Your task to perform on an android device: open app "PUBG MOBILE" Image 0: 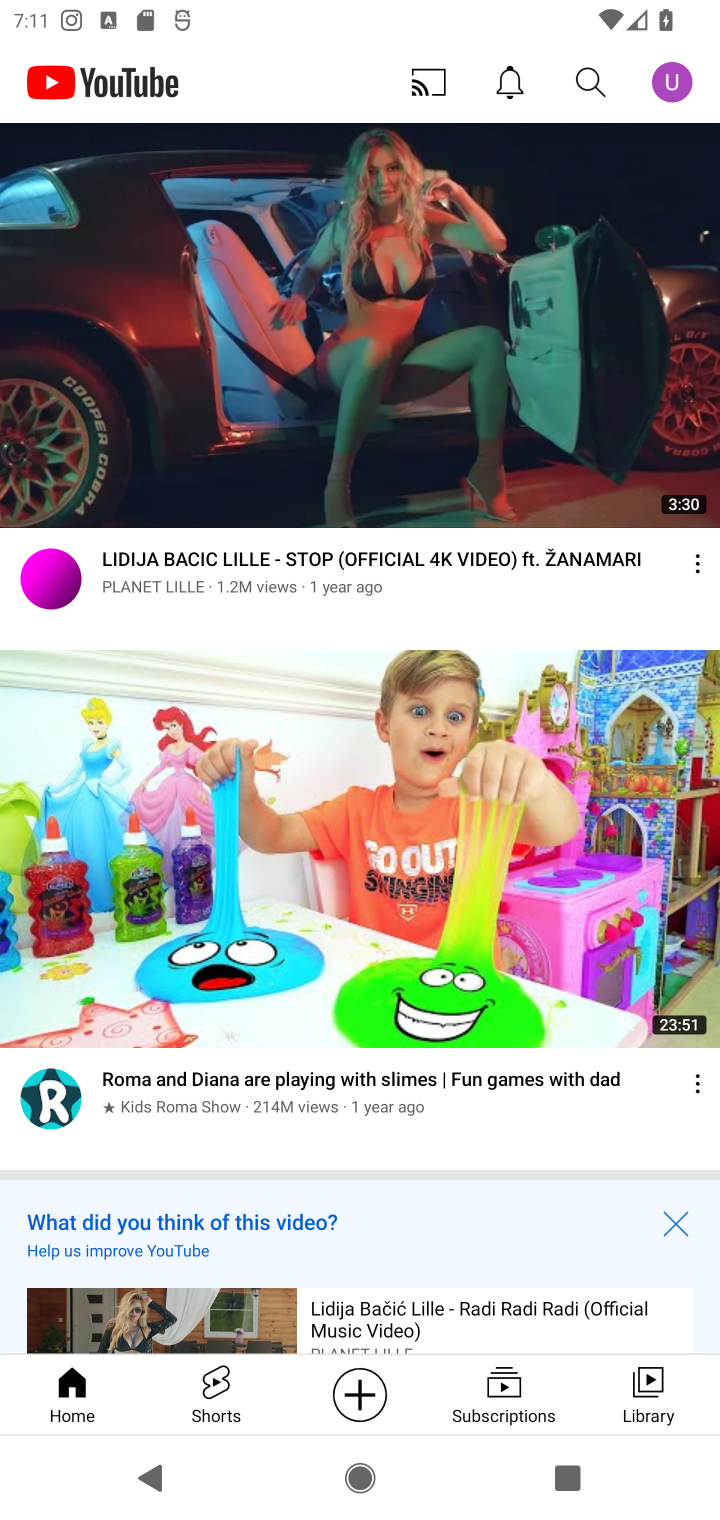
Step 0: press home button
Your task to perform on an android device: open app "PUBG MOBILE" Image 1: 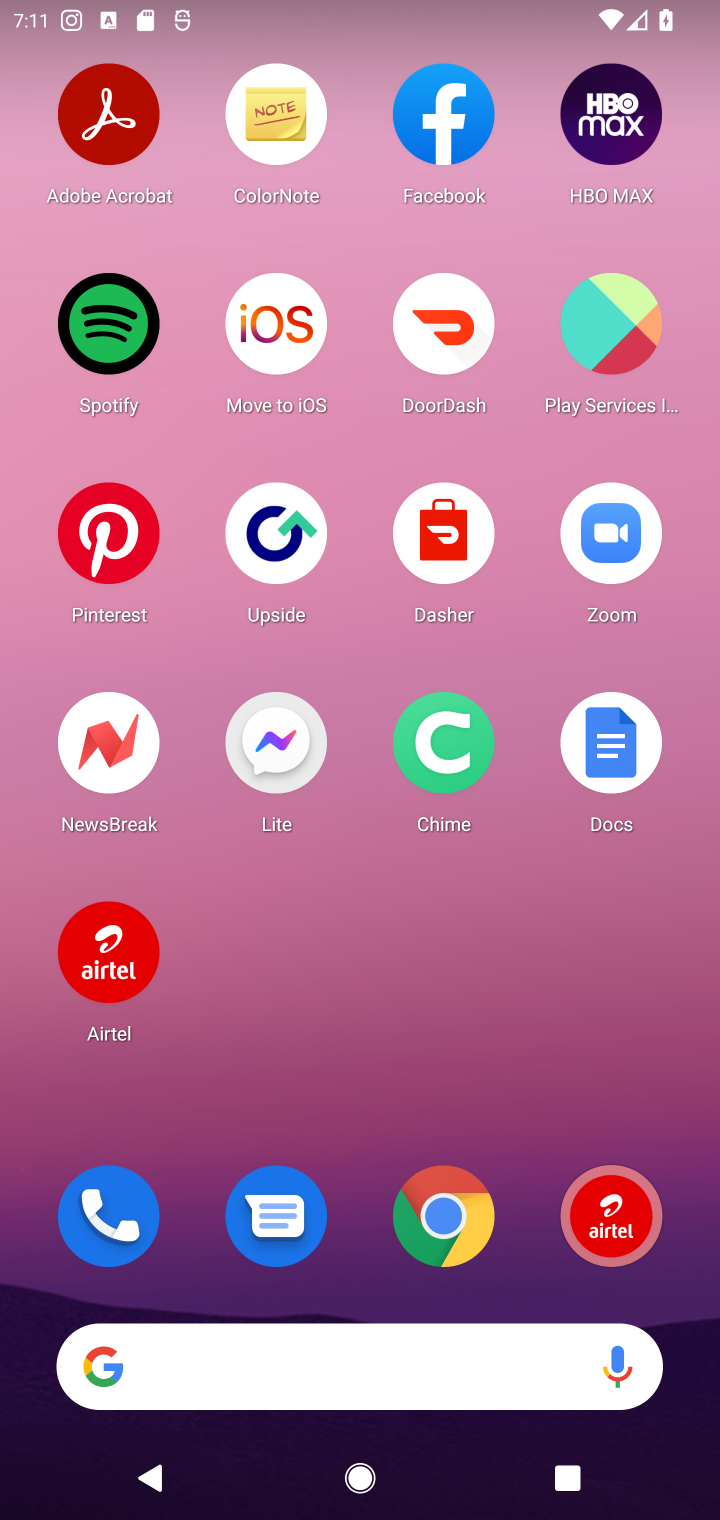
Step 1: drag from (425, 1076) to (445, 398)
Your task to perform on an android device: open app "PUBG MOBILE" Image 2: 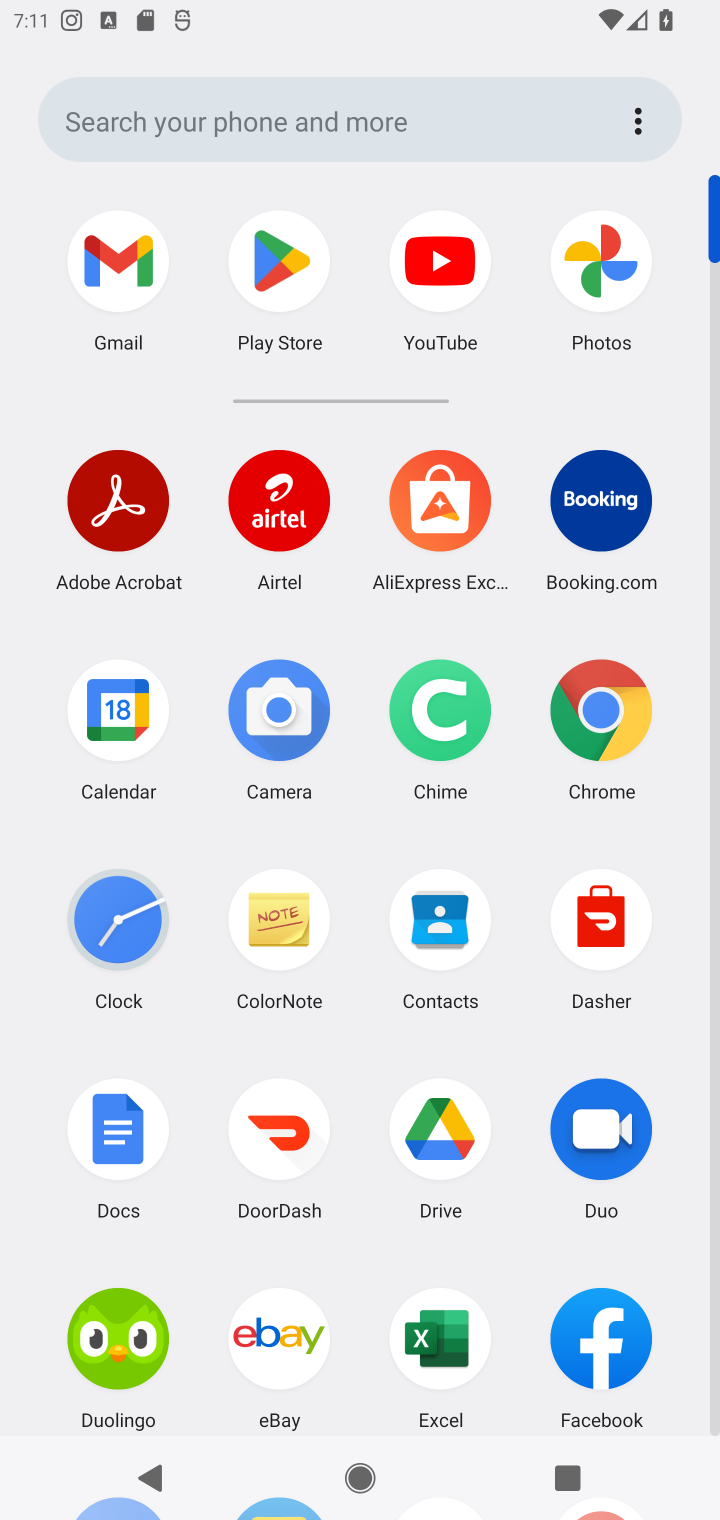
Step 2: click (285, 295)
Your task to perform on an android device: open app "PUBG MOBILE" Image 3: 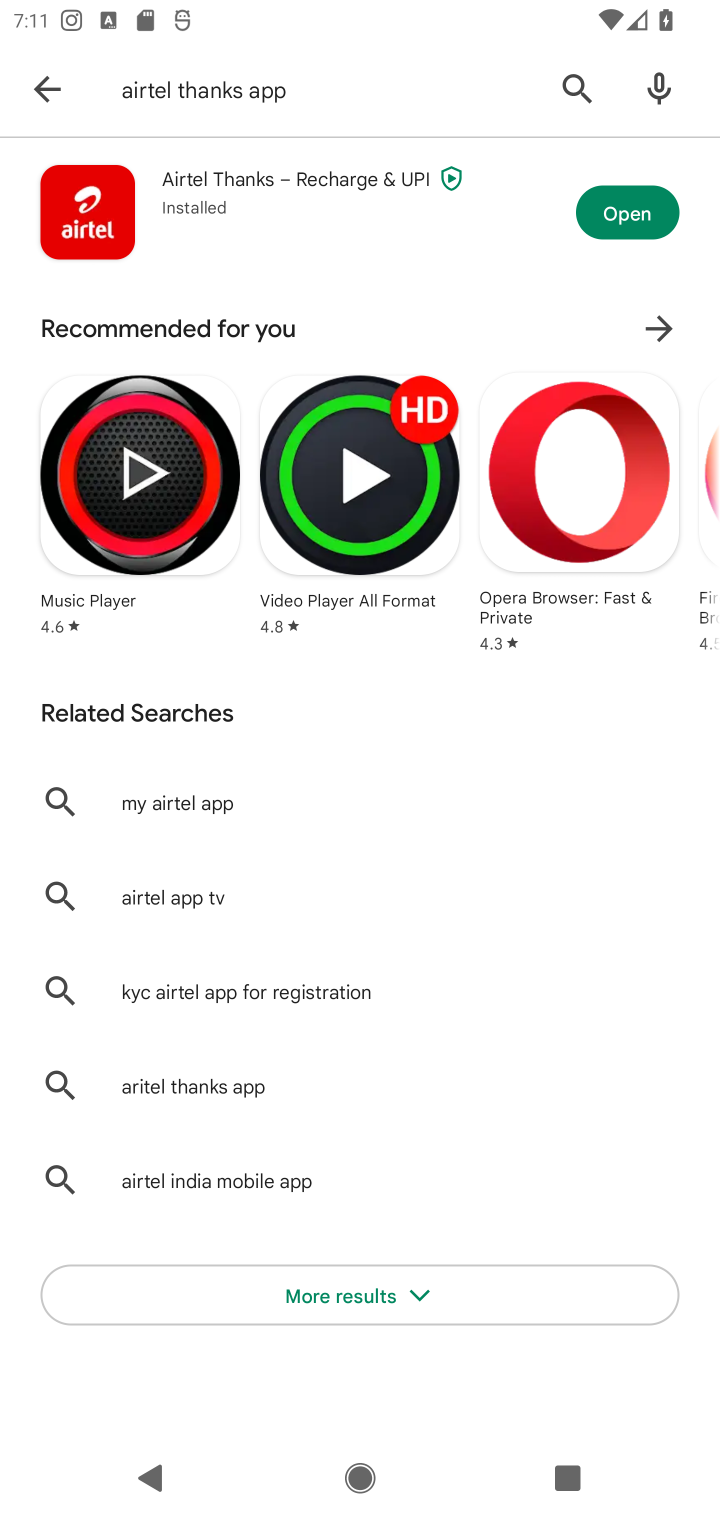
Step 3: click (564, 88)
Your task to perform on an android device: open app "PUBG MOBILE" Image 4: 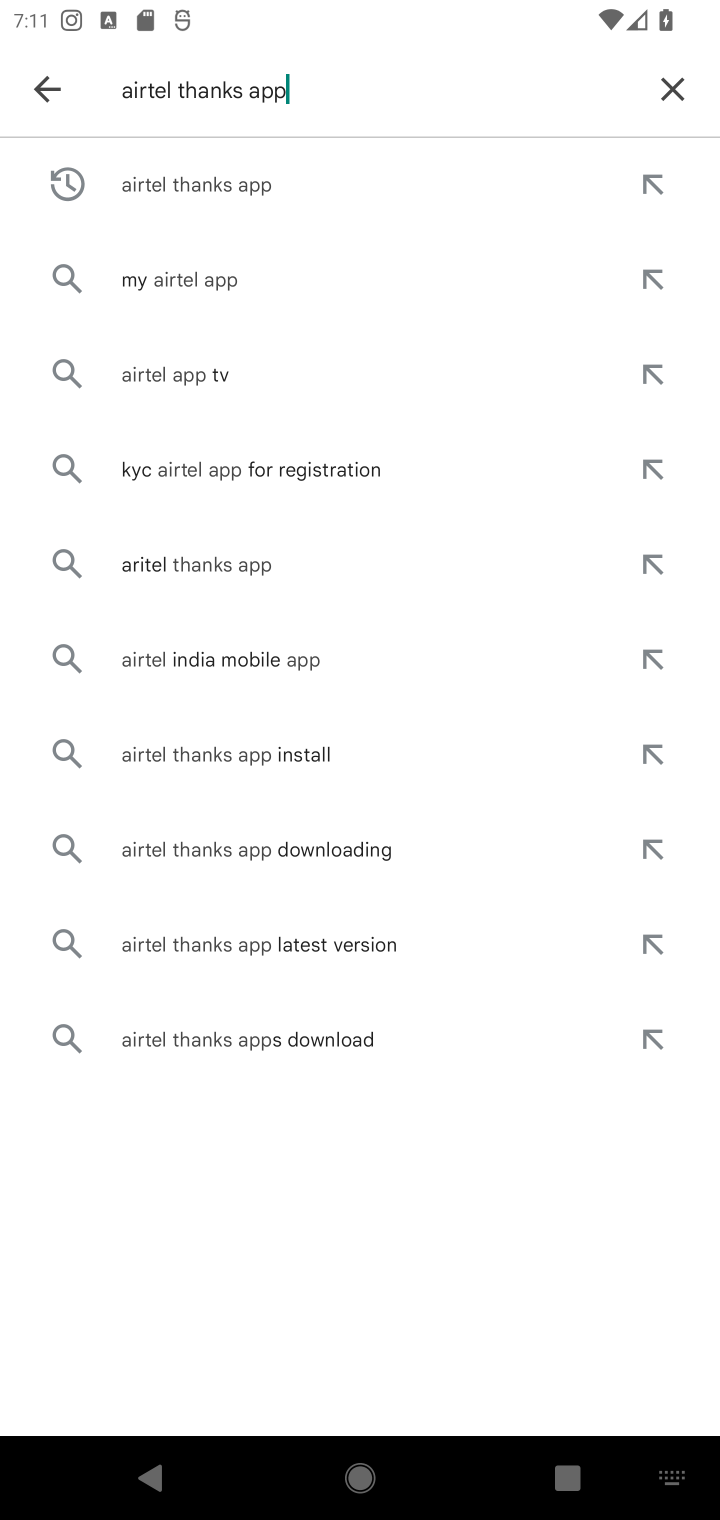
Step 4: click (661, 83)
Your task to perform on an android device: open app "PUBG MOBILE" Image 5: 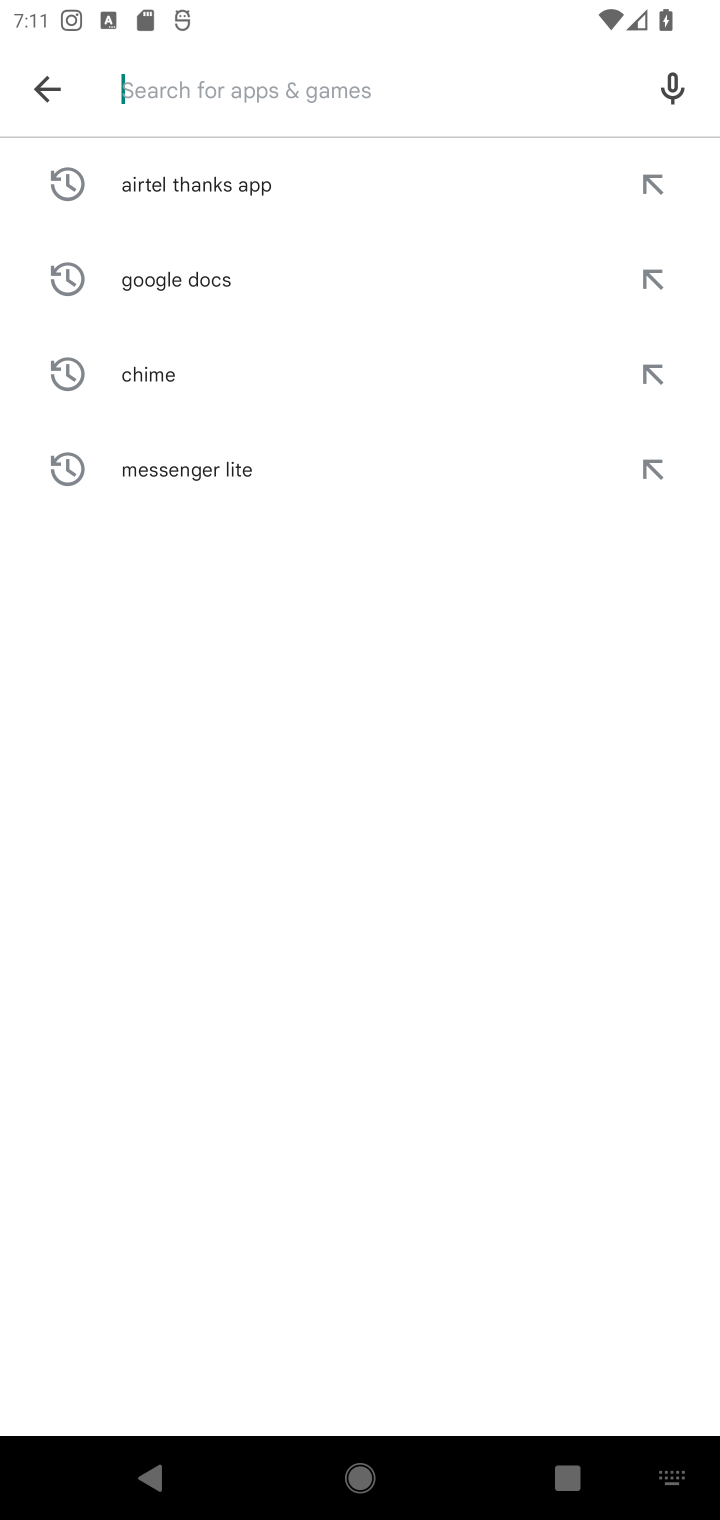
Step 5: type "PUBG MOBILE"
Your task to perform on an android device: open app "PUBG MOBILE" Image 6: 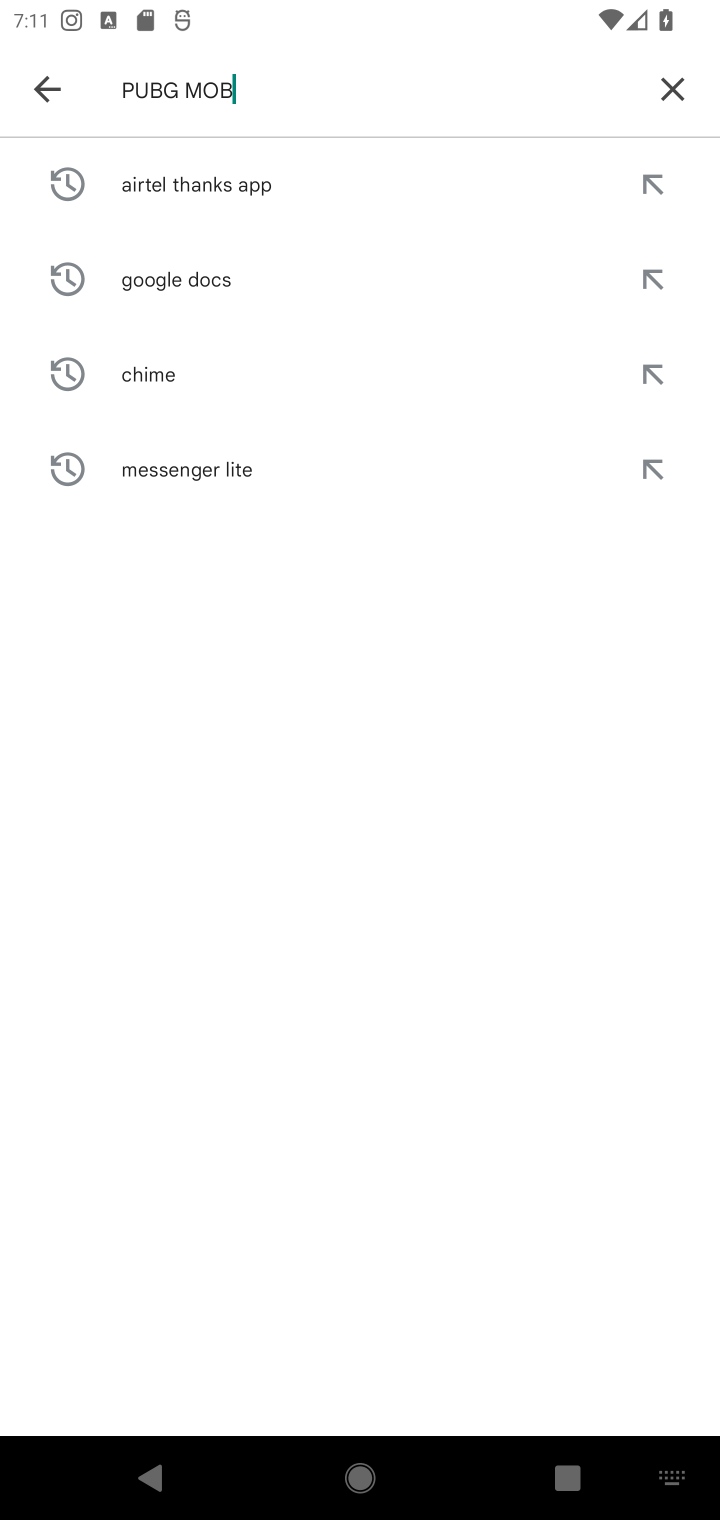
Step 6: type ""
Your task to perform on an android device: open app "PUBG MOBILE" Image 7: 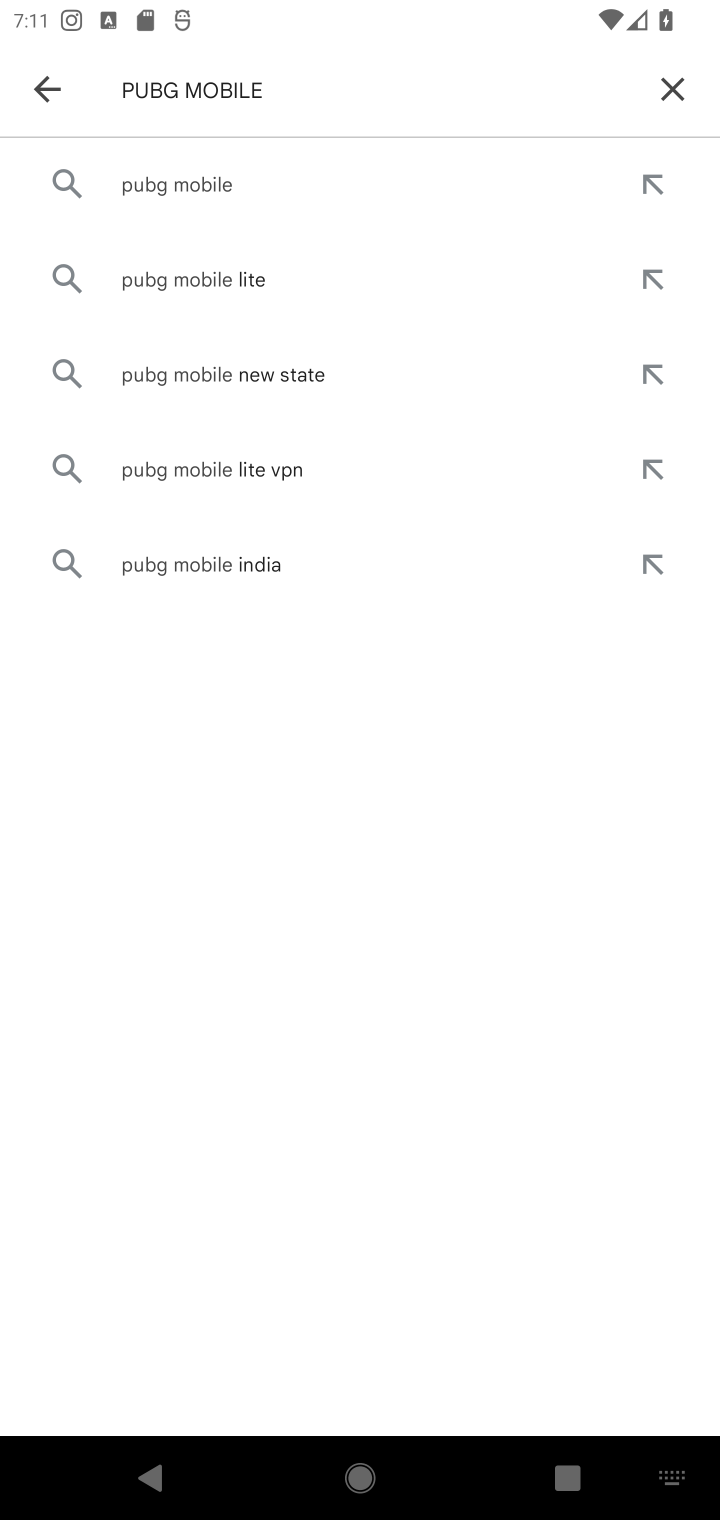
Step 7: click (284, 182)
Your task to perform on an android device: open app "PUBG MOBILE" Image 8: 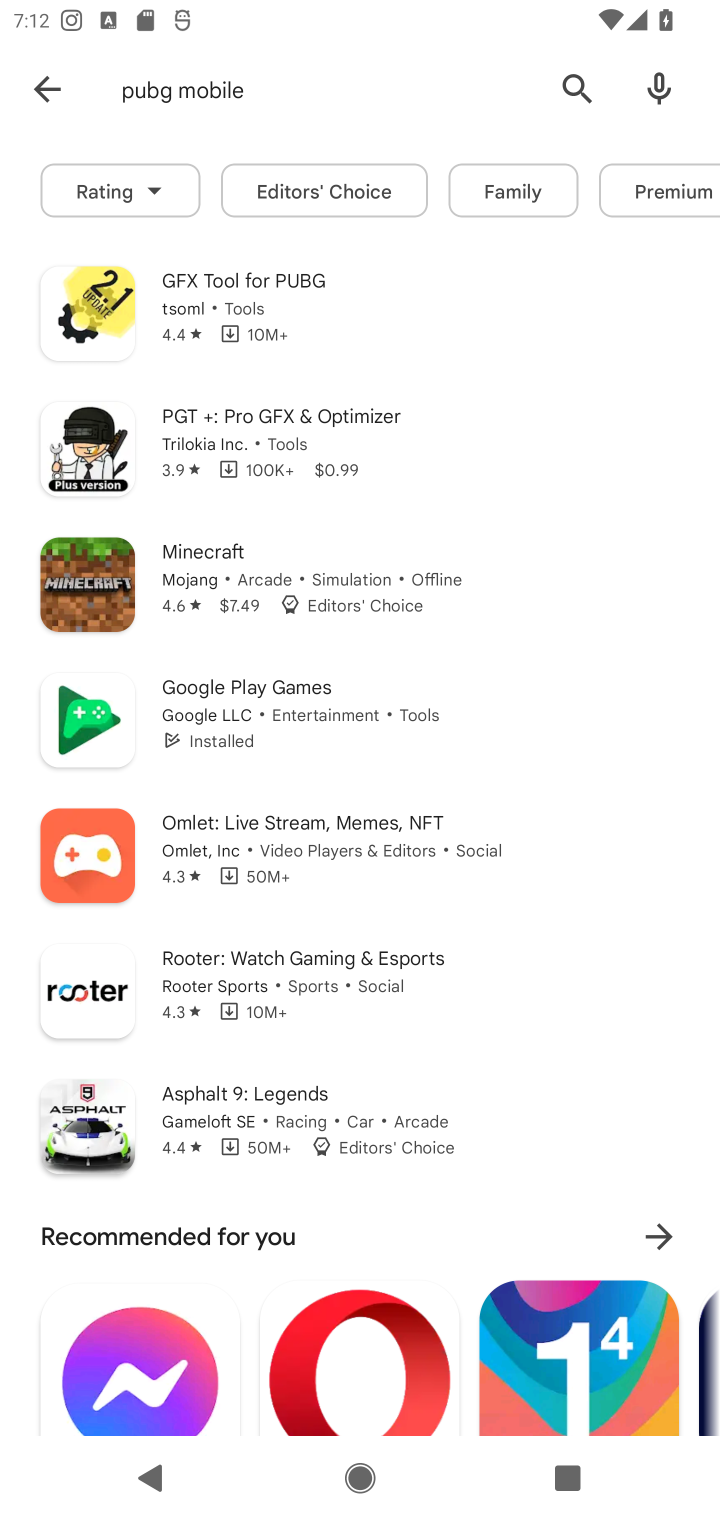
Step 8: task complete